Your task to perform on an android device: star an email in the gmail app Image 0: 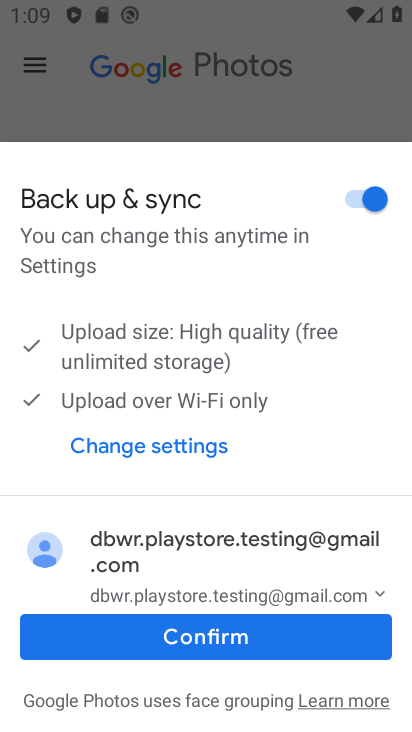
Step 0: press home button
Your task to perform on an android device: star an email in the gmail app Image 1: 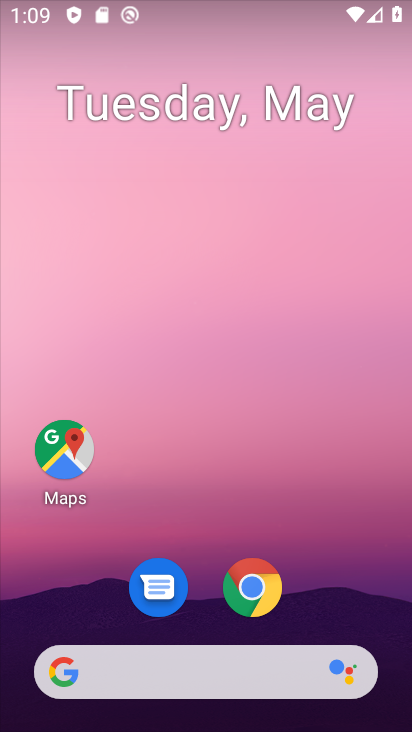
Step 1: drag from (196, 628) to (187, 135)
Your task to perform on an android device: star an email in the gmail app Image 2: 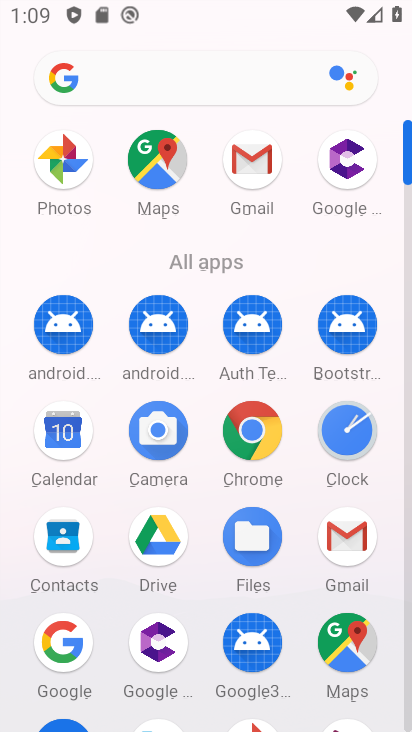
Step 2: click (248, 145)
Your task to perform on an android device: star an email in the gmail app Image 3: 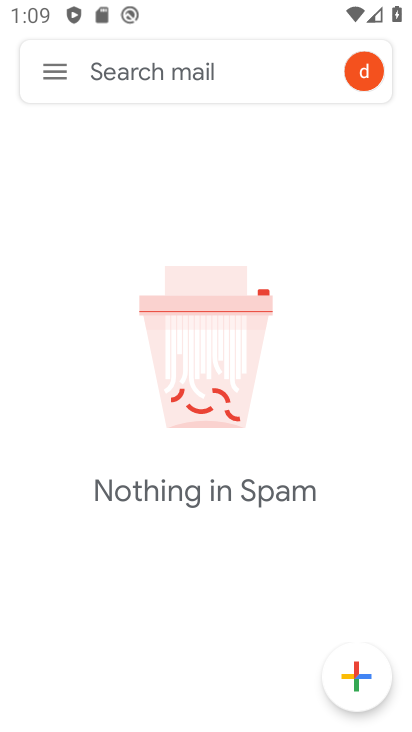
Step 3: click (45, 92)
Your task to perform on an android device: star an email in the gmail app Image 4: 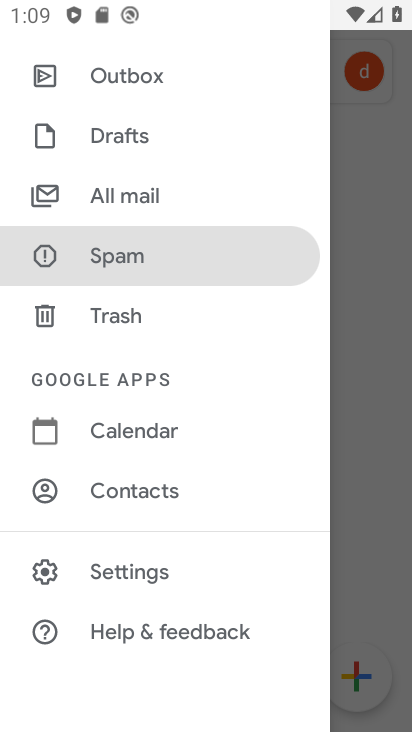
Step 4: click (193, 209)
Your task to perform on an android device: star an email in the gmail app Image 5: 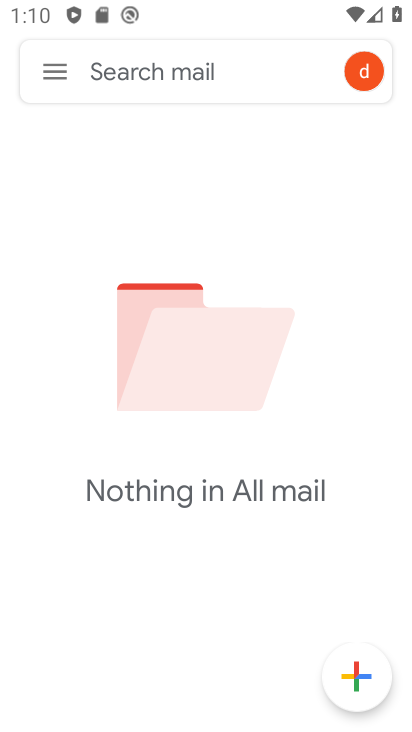
Step 5: task complete